Your task to perform on an android device: clear all cookies in the chrome app Image 0: 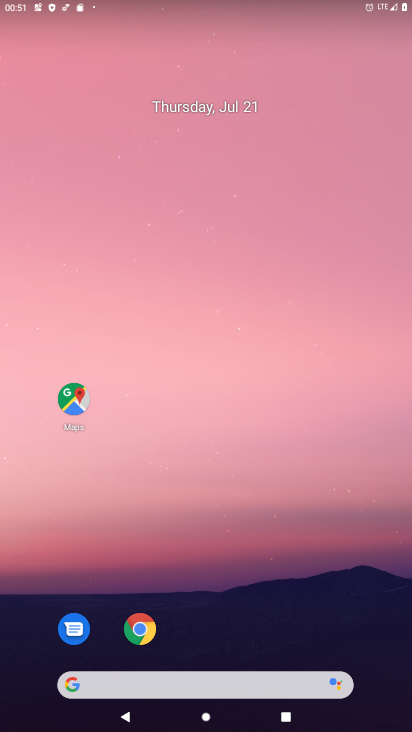
Step 0: click (252, 102)
Your task to perform on an android device: clear all cookies in the chrome app Image 1: 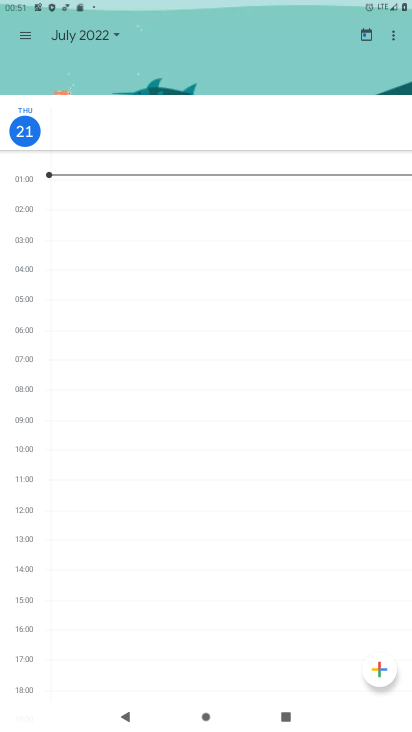
Step 1: press home button
Your task to perform on an android device: clear all cookies in the chrome app Image 2: 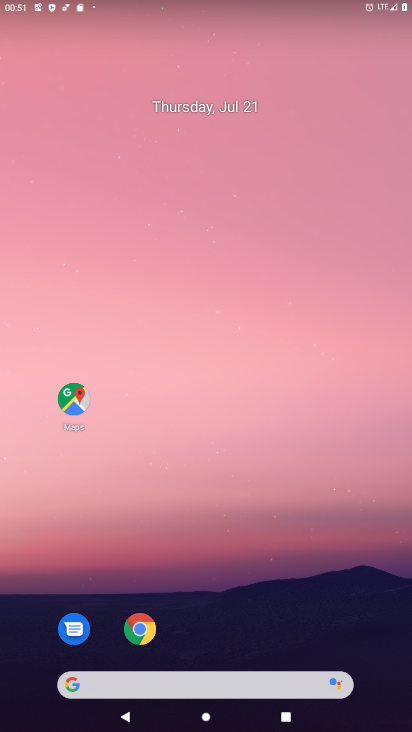
Step 2: drag from (272, 567) to (275, 172)
Your task to perform on an android device: clear all cookies in the chrome app Image 3: 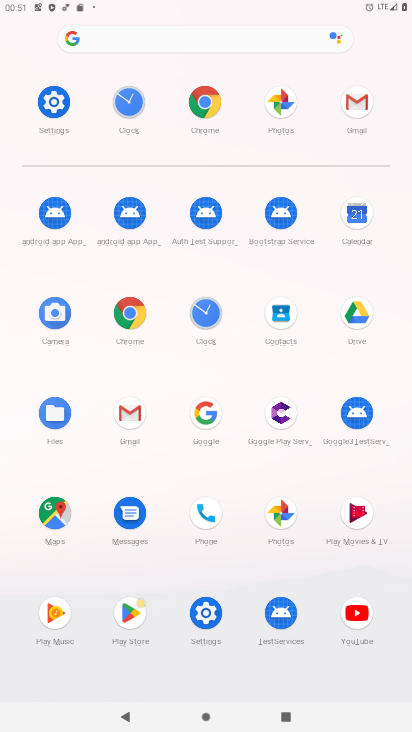
Step 3: click (127, 319)
Your task to perform on an android device: clear all cookies in the chrome app Image 4: 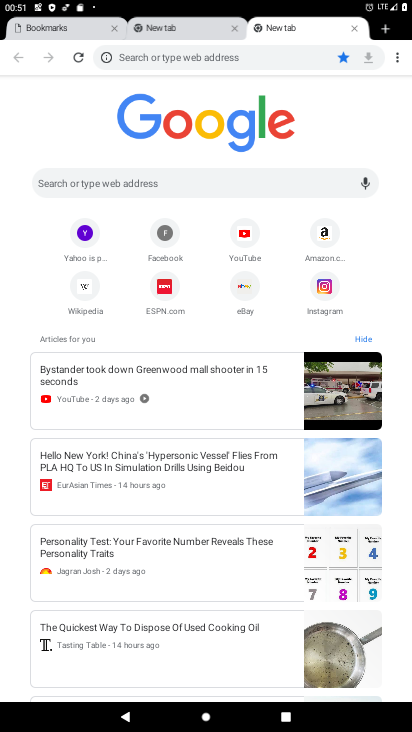
Step 4: drag from (399, 54) to (281, 209)
Your task to perform on an android device: clear all cookies in the chrome app Image 5: 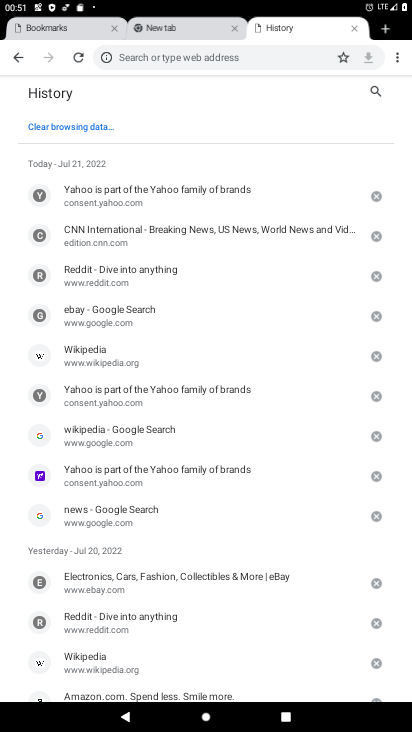
Step 5: click (93, 131)
Your task to perform on an android device: clear all cookies in the chrome app Image 6: 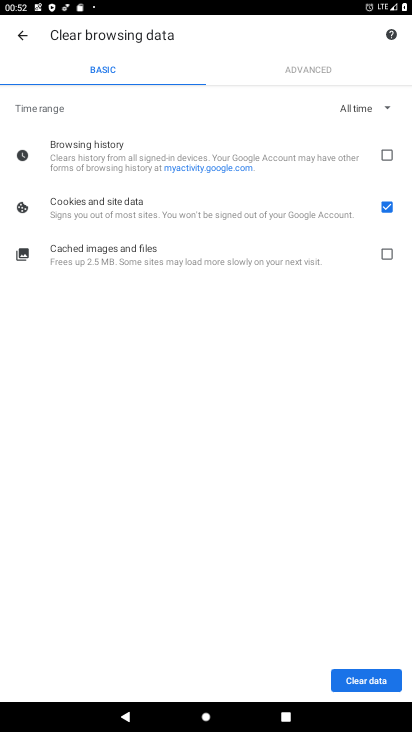
Step 6: click (374, 678)
Your task to perform on an android device: clear all cookies in the chrome app Image 7: 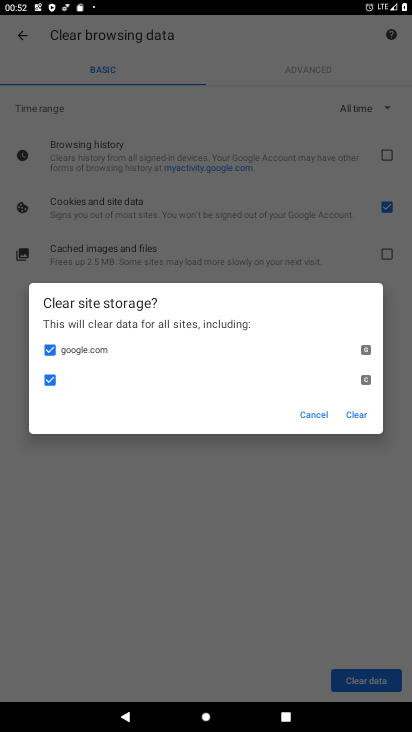
Step 7: click (362, 413)
Your task to perform on an android device: clear all cookies in the chrome app Image 8: 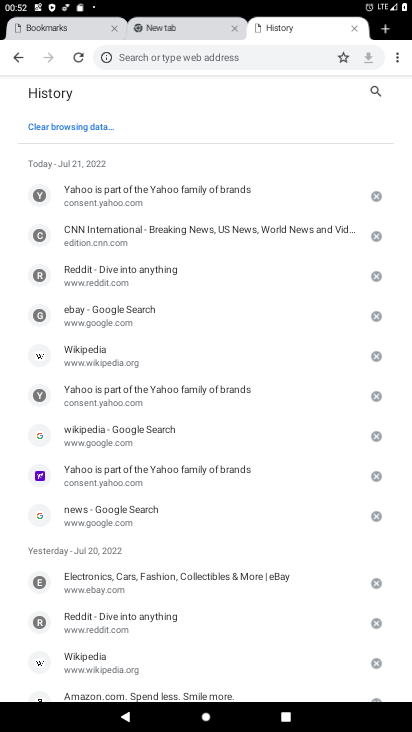
Step 8: task complete